Your task to perform on an android device: Open the map Image 0: 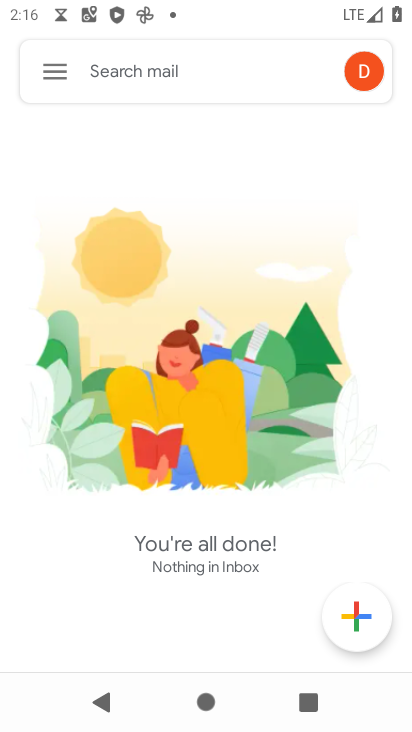
Step 0: press home button
Your task to perform on an android device: Open the map Image 1: 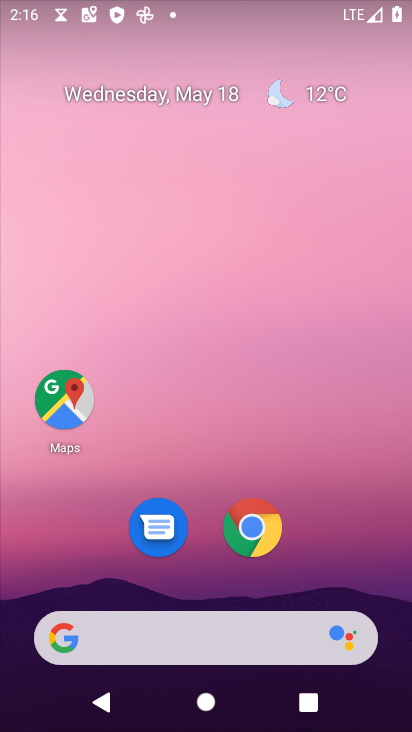
Step 1: click (74, 410)
Your task to perform on an android device: Open the map Image 2: 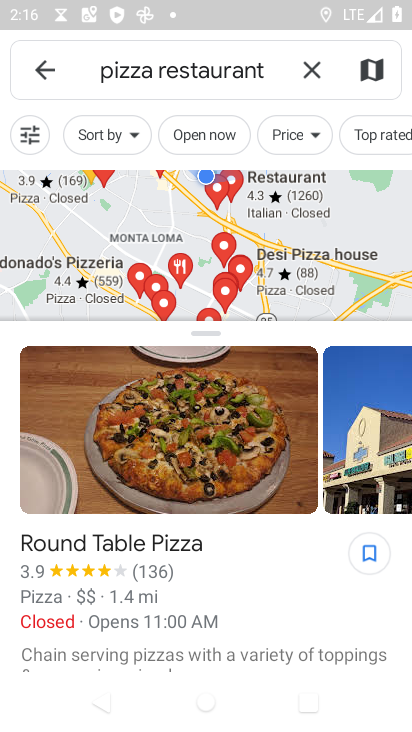
Step 2: task complete